Your task to perform on an android device: Is it going to rain tomorrow? Image 0: 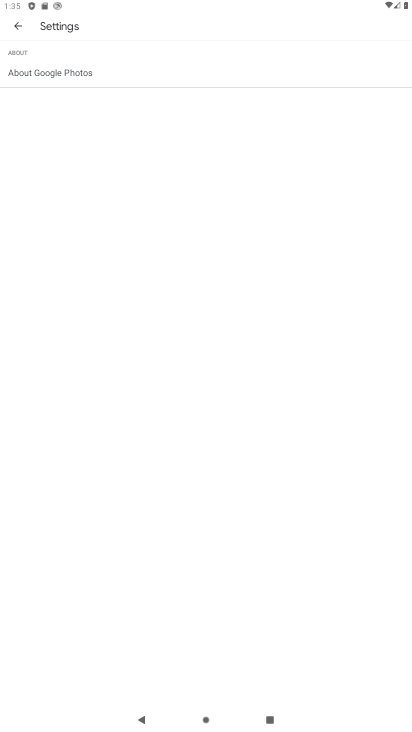
Step 0: press home button
Your task to perform on an android device: Is it going to rain tomorrow? Image 1: 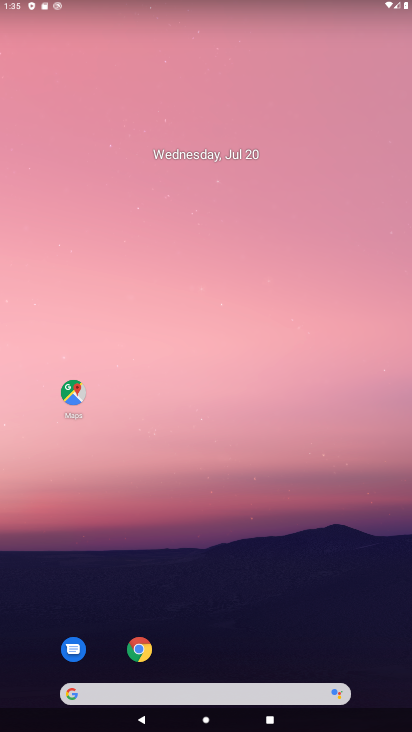
Step 1: click (244, 692)
Your task to perform on an android device: Is it going to rain tomorrow? Image 2: 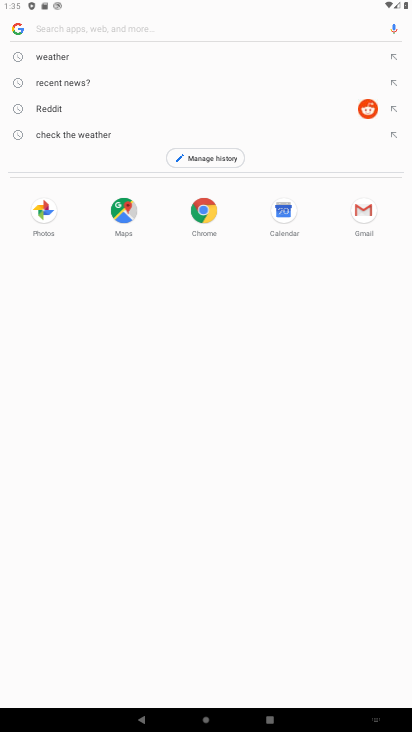
Step 2: type "Is it going to rain tomorrow?"
Your task to perform on an android device: Is it going to rain tomorrow? Image 3: 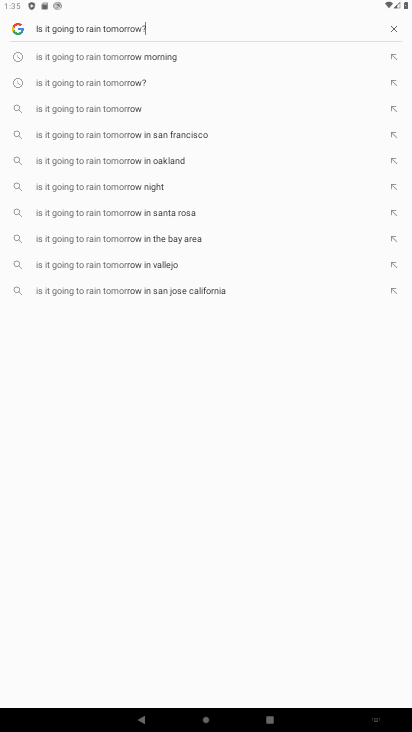
Step 3: press enter
Your task to perform on an android device: Is it going to rain tomorrow? Image 4: 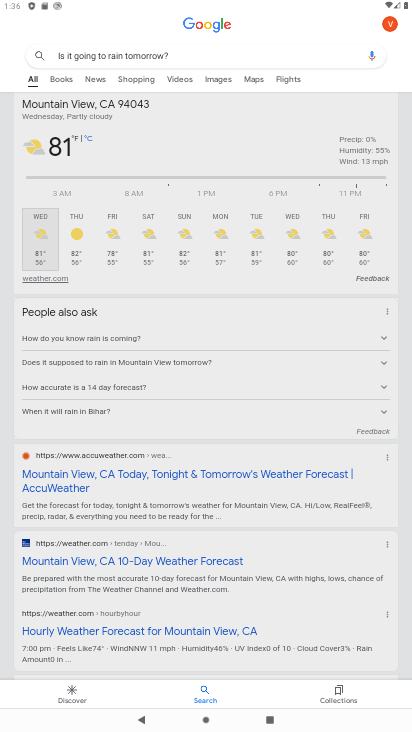
Step 4: task complete